Your task to perform on an android device: Open Wikipedia Image 0: 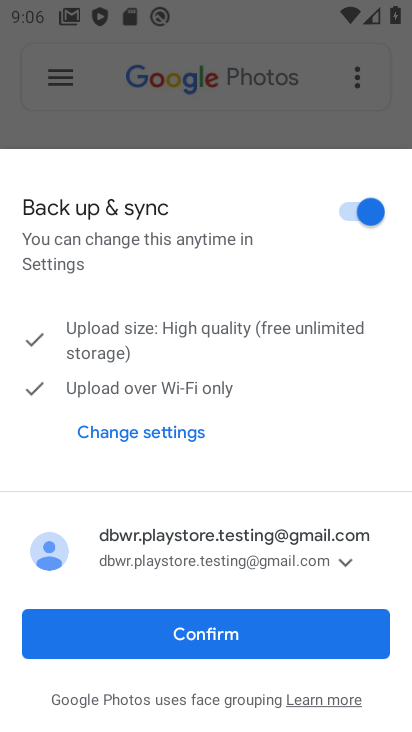
Step 0: press back button
Your task to perform on an android device: Open Wikipedia Image 1: 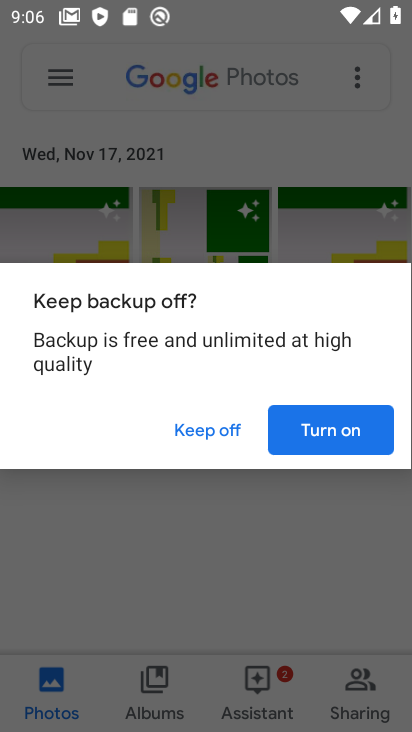
Step 1: press back button
Your task to perform on an android device: Open Wikipedia Image 2: 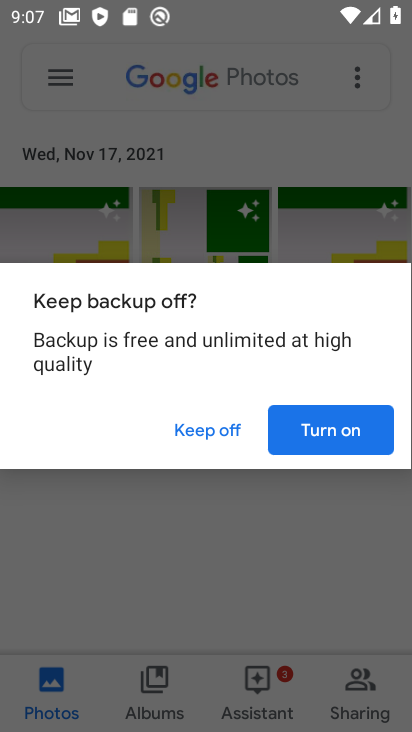
Step 2: click (175, 519)
Your task to perform on an android device: Open Wikipedia Image 3: 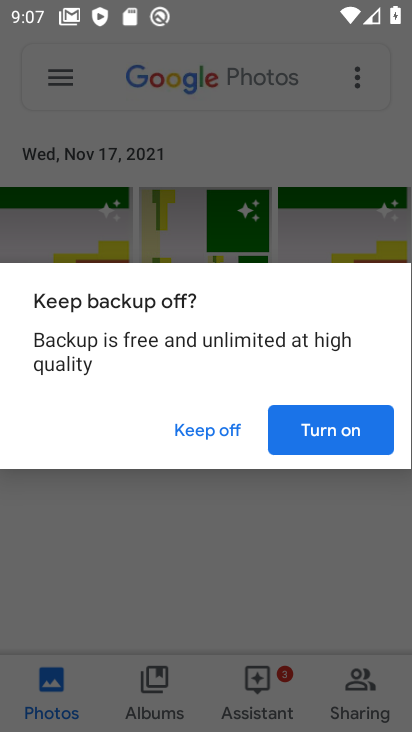
Step 3: click (299, 428)
Your task to perform on an android device: Open Wikipedia Image 4: 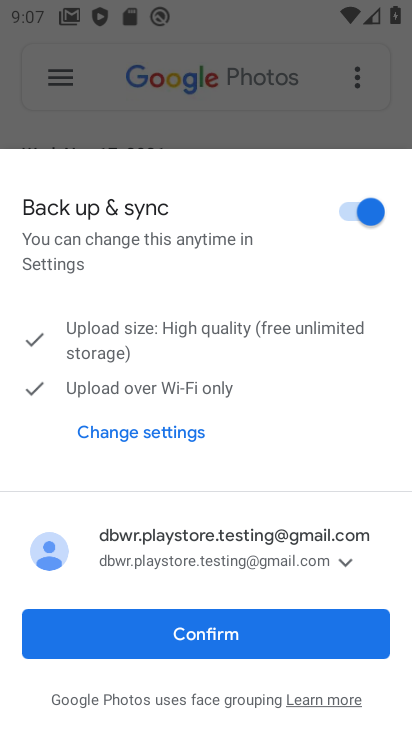
Step 4: press home button
Your task to perform on an android device: Open Wikipedia Image 5: 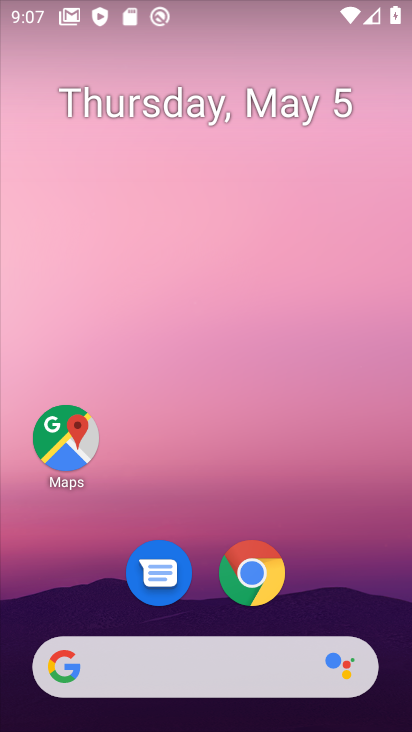
Step 5: click (255, 582)
Your task to perform on an android device: Open Wikipedia Image 6: 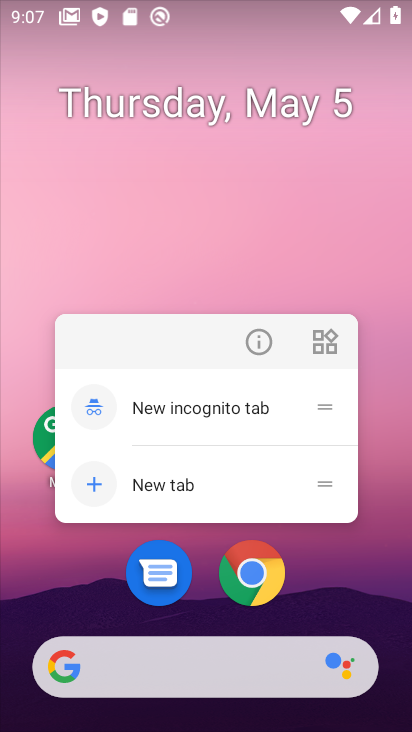
Step 6: click (266, 573)
Your task to perform on an android device: Open Wikipedia Image 7: 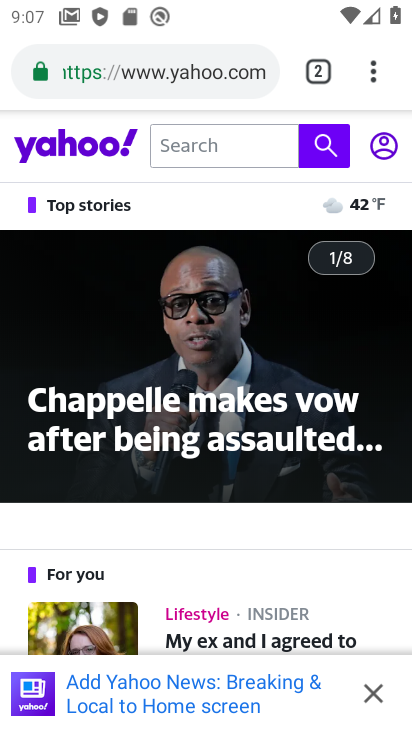
Step 7: click (313, 73)
Your task to perform on an android device: Open Wikipedia Image 8: 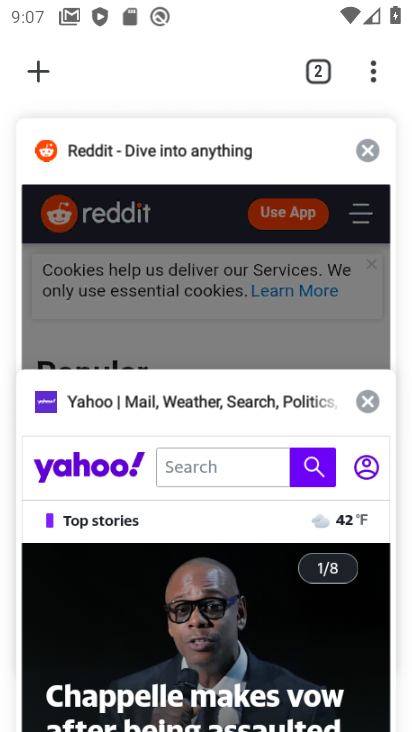
Step 8: click (42, 66)
Your task to perform on an android device: Open Wikipedia Image 9: 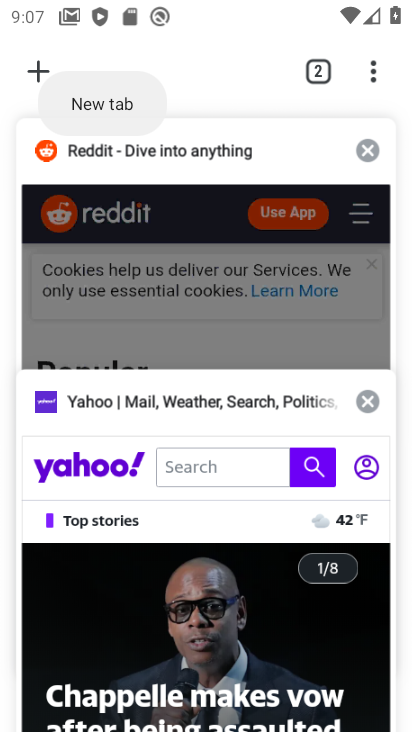
Step 9: click (44, 67)
Your task to perform on an android device: Open Wikipedia Image 10: 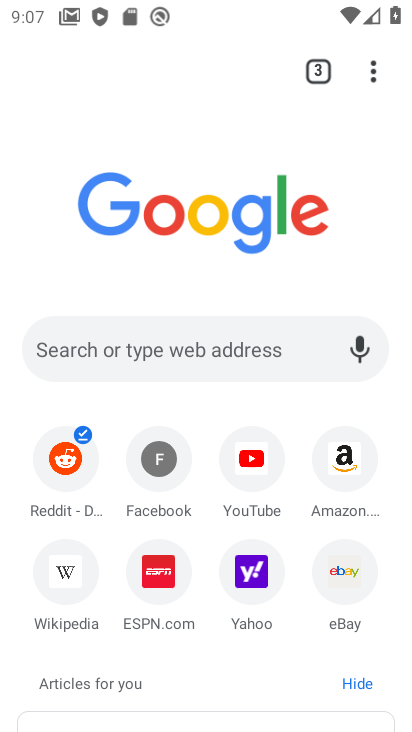
Step 10: click (68, 586)
Your task to perform on an android device: Open Wikipedia Image 11: 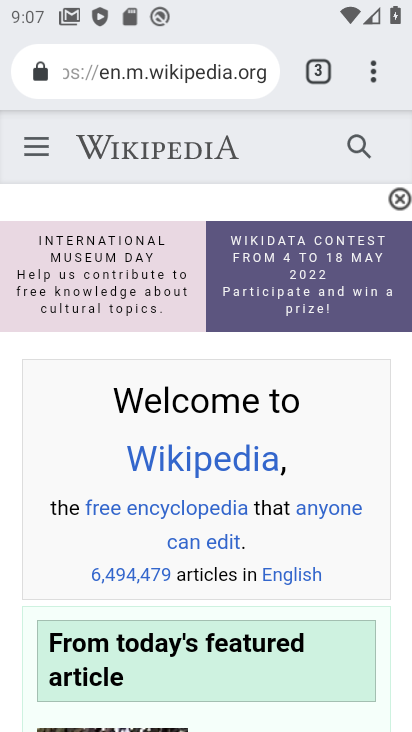
Step 11: task complete